Your task to perform on an android device: turn on bluetooth scan Image 0: 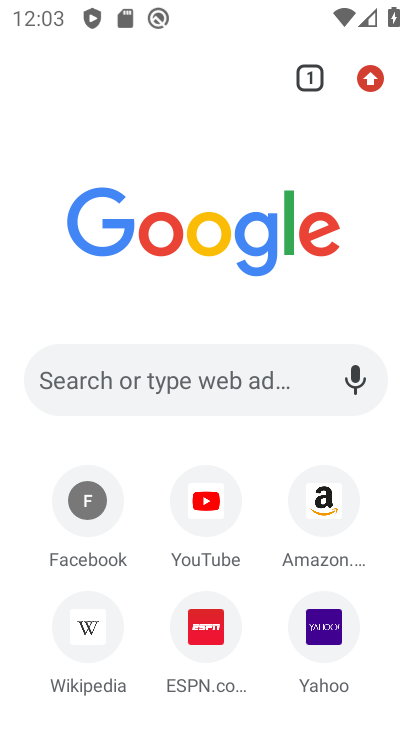
Step 0: press home button
Your task to perform on an android device: turn on bluetooth scan Image 1: 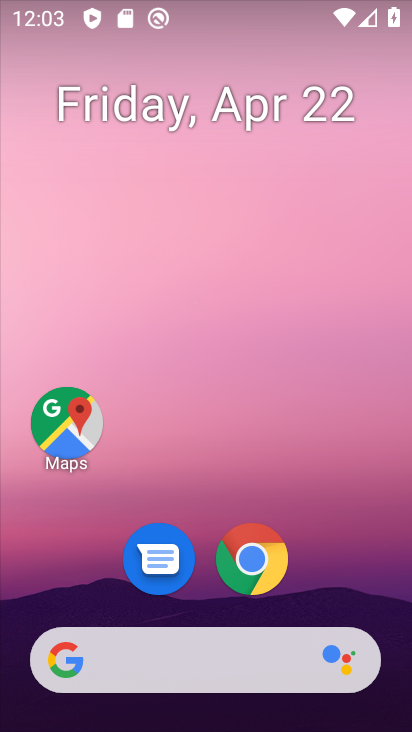
Step 1: drag from (363, 527) to (353, 129)
Your task to perform on an android device: turn on bluetooth scan Image 2: 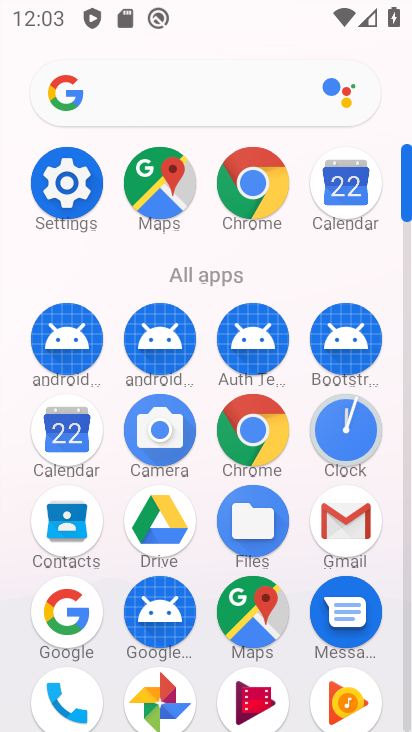
Step 2: click (63, 183)
Your task to perform on an android device: turn on bluetooth scan Image 3: 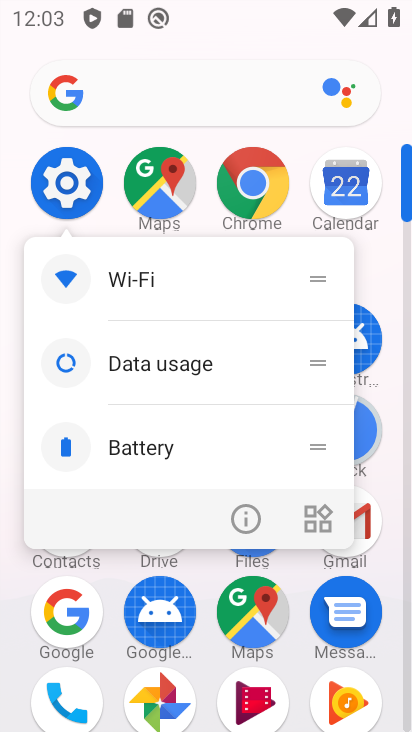
Step 3: click (63, 183)
Your task to perform on an android device: turn on bluetooth scan Image 4: 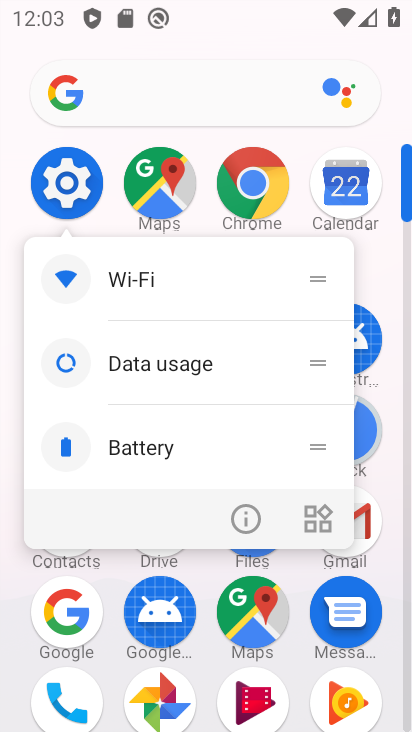
Step 4: click (63, 183)
Your task to perform on an android device: turn on bluetooth scan Image 5: 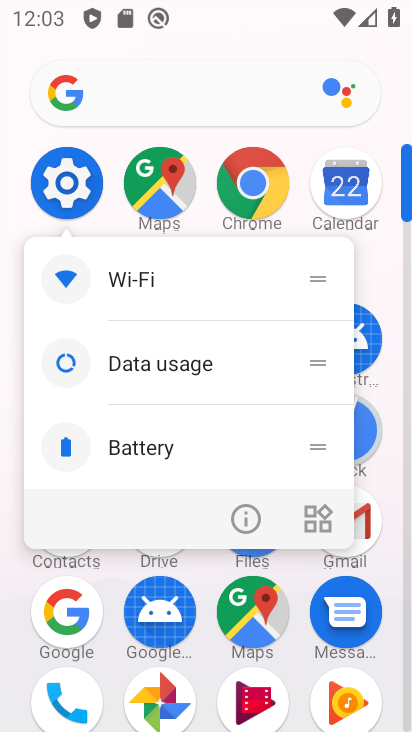
Step 5: click (65, 181)
Your task to perform on an android device: turn on bluetooth scan Image 6: 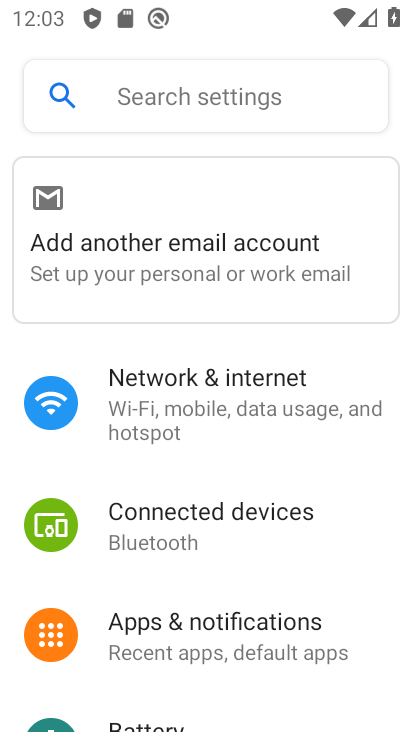
Step 6: drag from (373, 606) to (378, 450)
Your task to perform on an android device: turn on bluetooth scan Image 7: 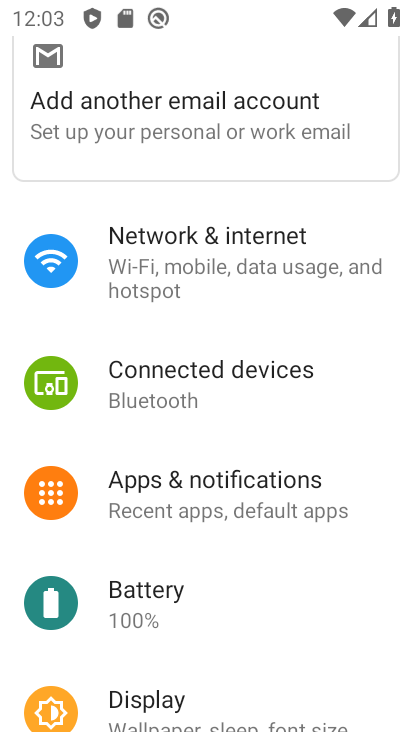
Step 7: drag from (365, 620) to (371, 491)
Your task to perform on an android device: turn on bluetooth scan Image 8: 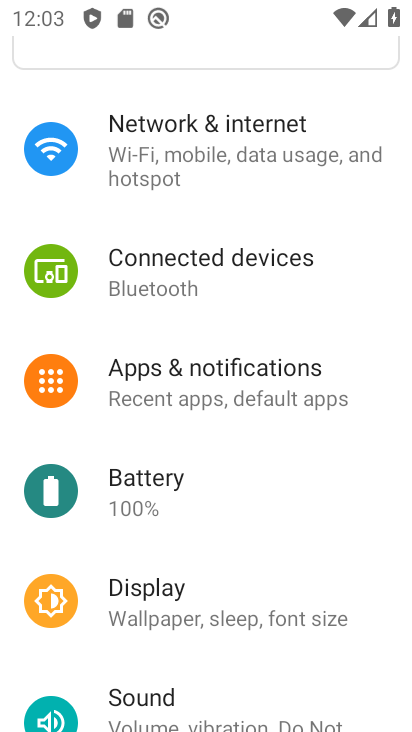
Step 8: drag from (371, 551) to (344, 428)
Your task to perform on an android device: turn on bluetooth scan Image 9: 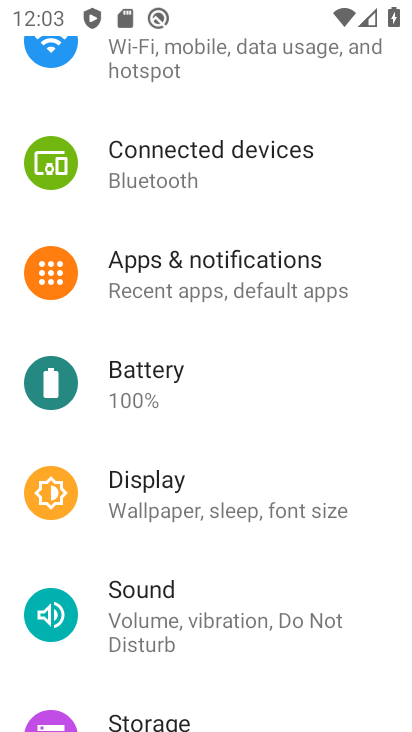
Step 9: drag from (379, 668) to (369, 504)
Your task to perform on an android device: turn on bluetooth scan Image 10: 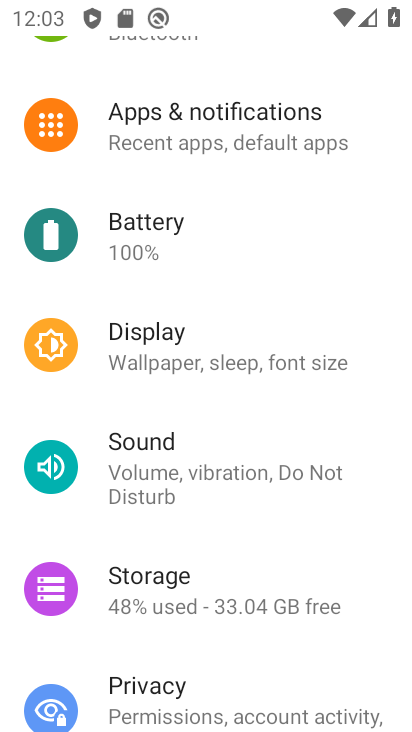
Step 10: drag from (357, 637) to (348, 482)
Your task to perform on an android device: turn on bluetooth scan Image 11: 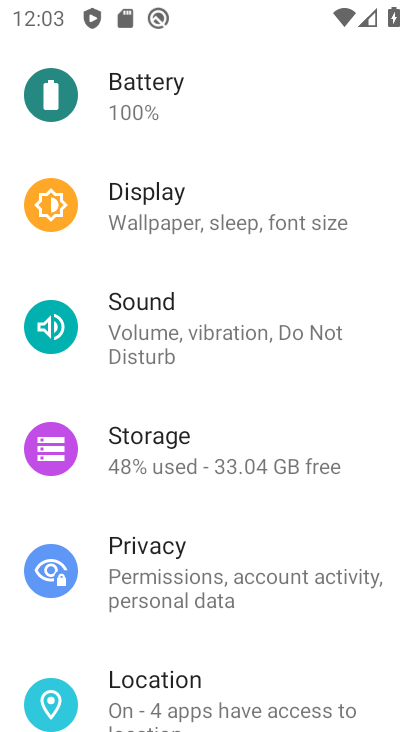
Step 11: drag from (372, 632) to (360, 458)
Your task to perform on an android device: turn on bluetooth scan Image 12: 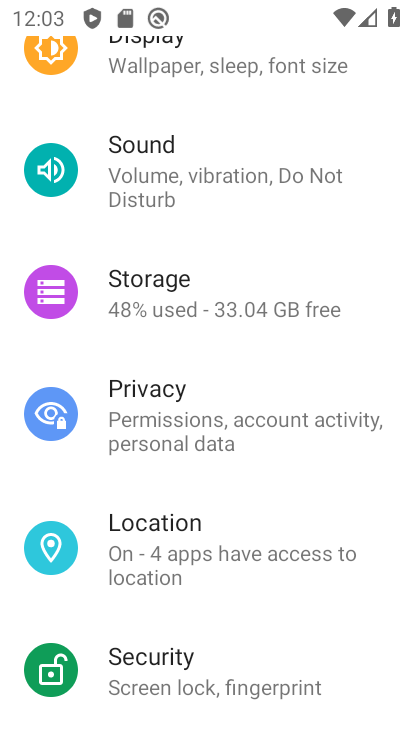
Step 12: click (290, 547)
Your task to perform on an android device: turn on bluetooth scan Image 13: 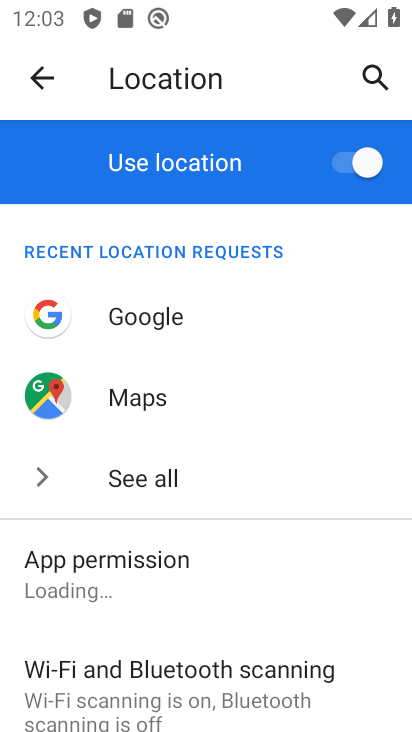
Step 13: drag from (283, 588) to (292, 403)
Your task to perform on an android device: turn on bluetooth scan Image 14: 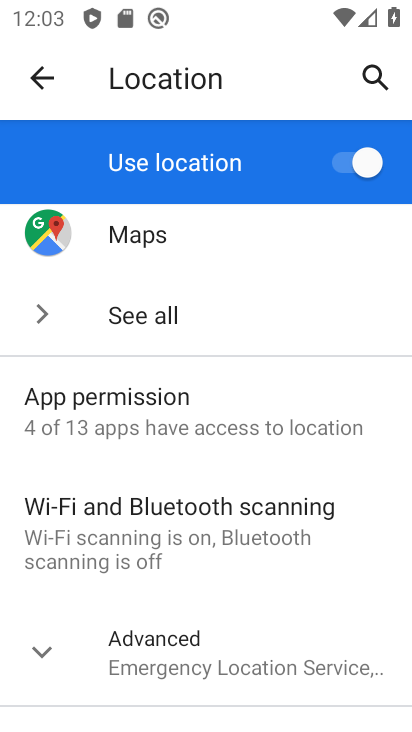
Step 14: click (305, 533)
Your task to perform on an android device: turn on bluetooth scan Image 15: 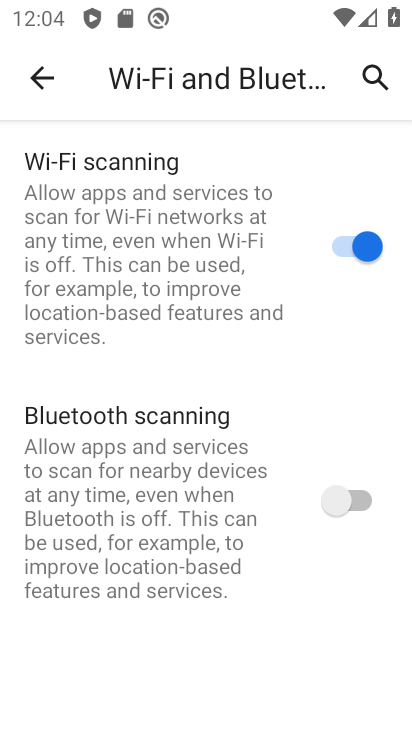
Step 15: click (334, 515)
Your task to perform on an android device: turn on bluetooth scan Image 16: 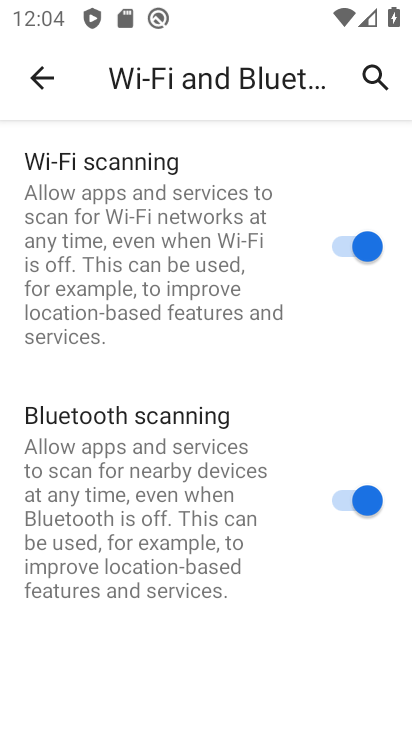
Step 16: task complete